Your task to perform on an android device: turn off notifications in google photos Image 0: 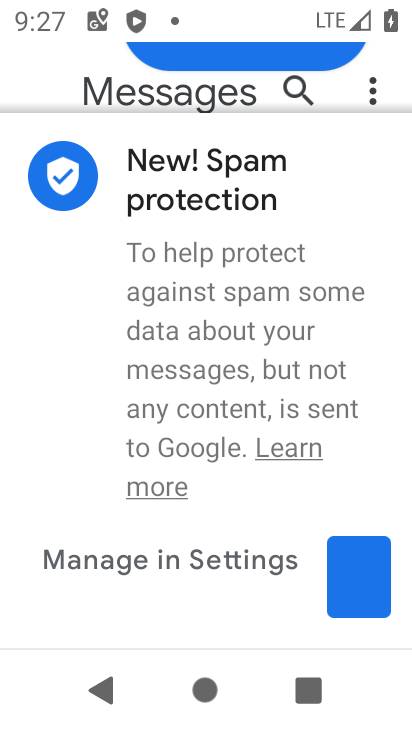
Step 0: press home button
Your task to perform on an android device: turn off notifications in google photos Image 1: 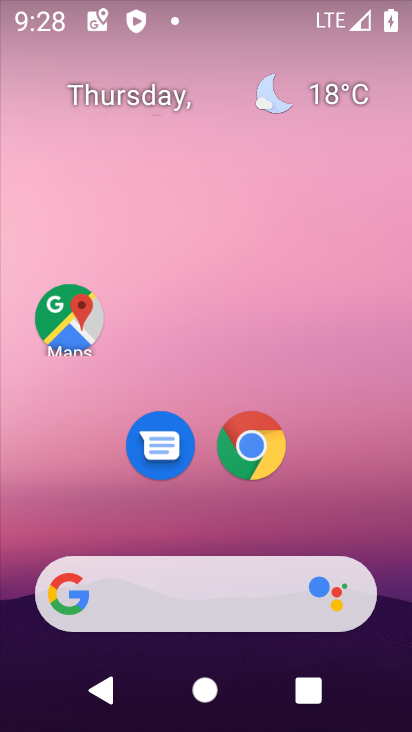
Step 1: drag from (363, 478) to (304, 126)
Your task to perform on an android device: turn off notifications in google photos Image 2: 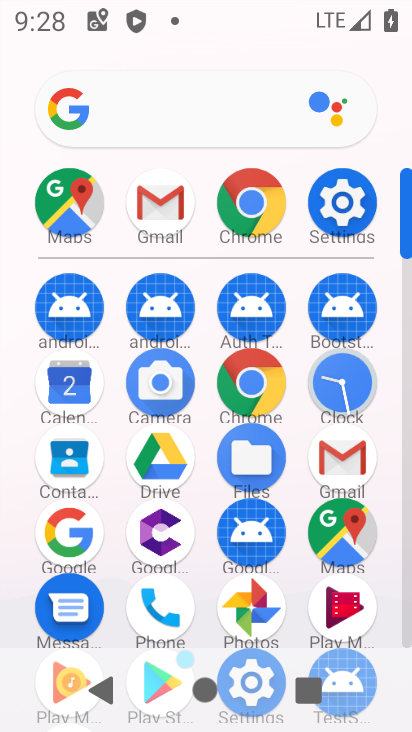
Step 2: click (255, 599)
Your task to perform on an android device: turn off notifications in google photos Image 3: 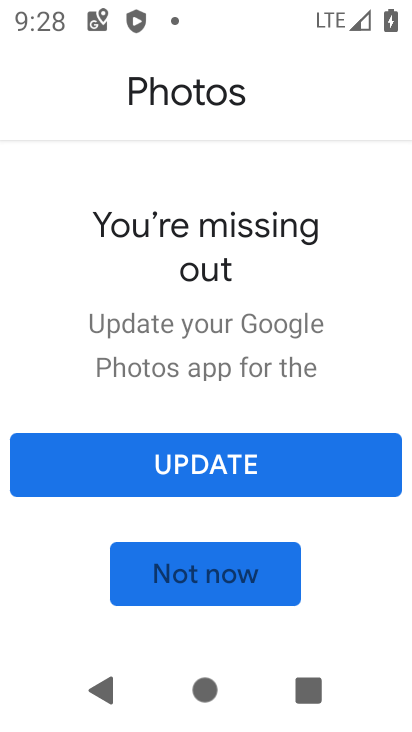
Step 3: click (247, 572)
Your task to perform on an android device: turn off notifications in google photos Image 4: 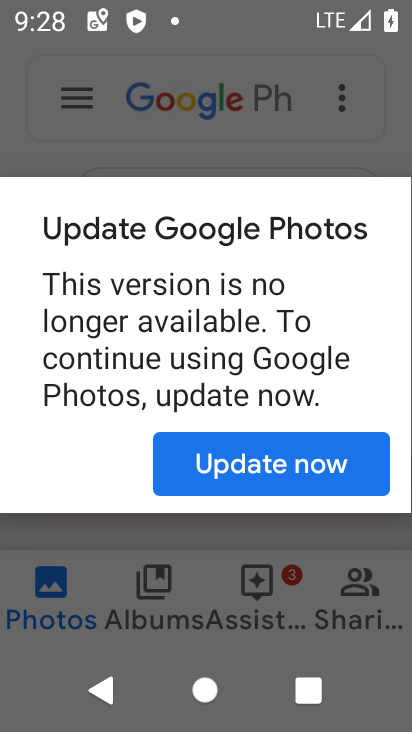
Step 4: click (251, 447)
Your task to perform on an android device: turn off notifications in google photos Image 5: 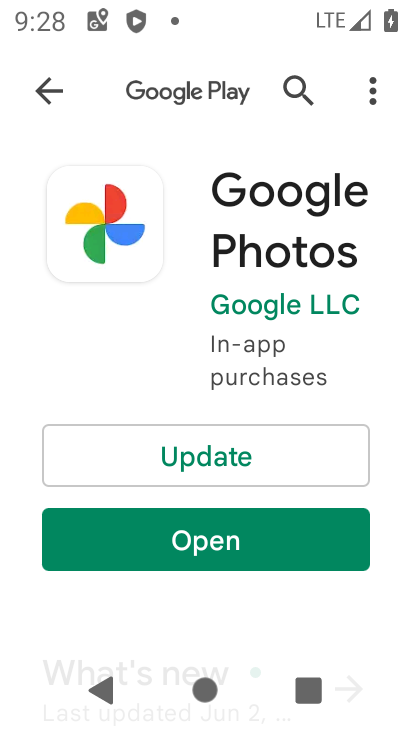
Step 5: click (251, 447)
Your task to perform on an android device: turn off notifications in google photos Image 6: 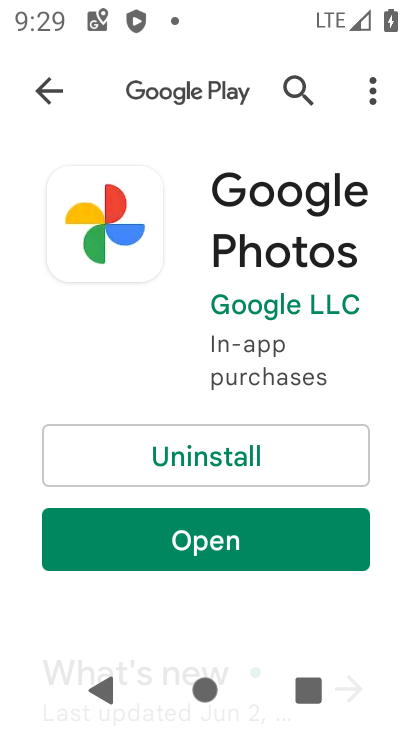
Step 6: click (286, 533)
Your task to perform on an android device: turn off notifications in google photos Image 7: 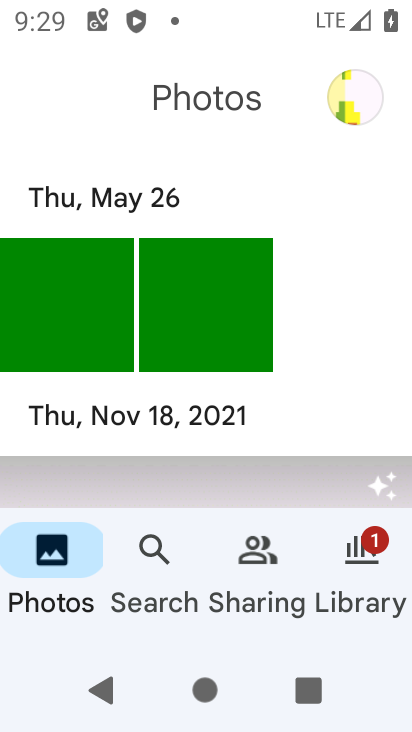
Step 7: click (374, 106)
Your task to perform on an android device: turn off notifications in google photos Image 8: 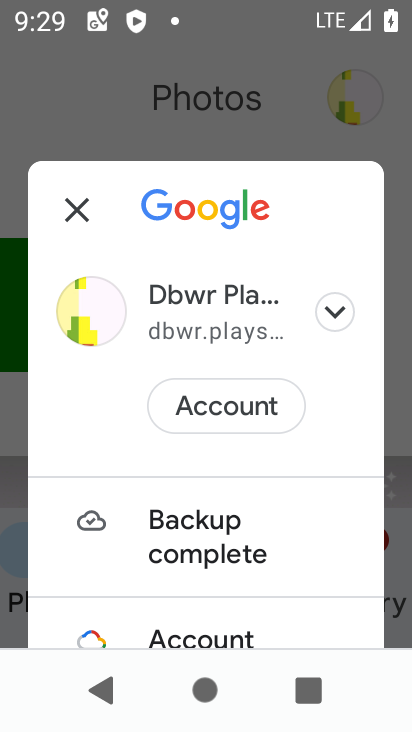
Step 8: drag from (318, 627) to (293, 249)
Your task to perform on an android device: turn off notifications in google photos Image 9: 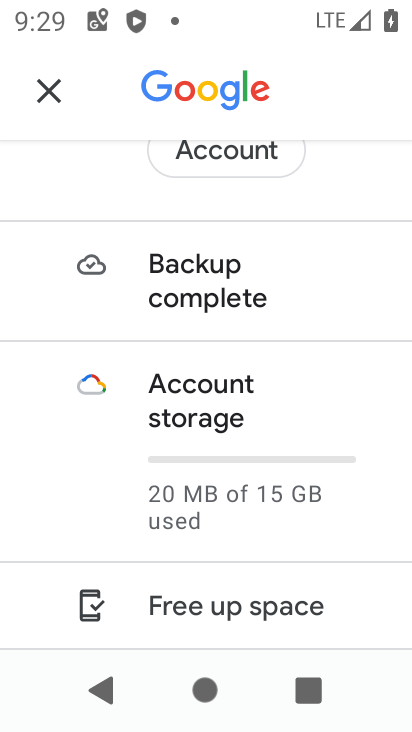
Step 9: drag from (304, 574) to (266, 180)
Your task to perform on an android device: turn off notifications in google photos Image 10: 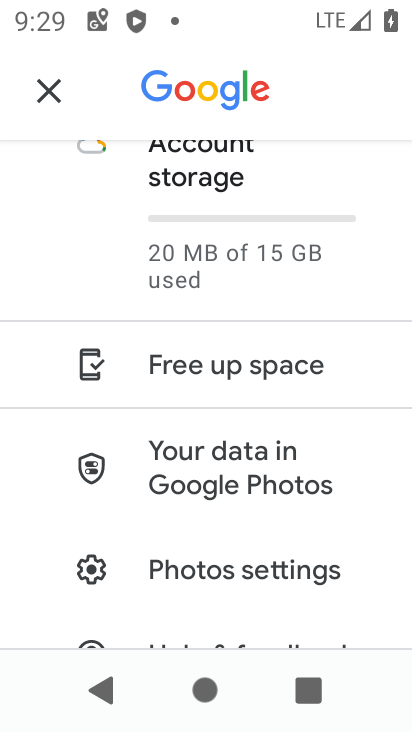
Step 10: click (271, 570)
Your task to perform on an android device: turn off notifications in google photos Image 11: 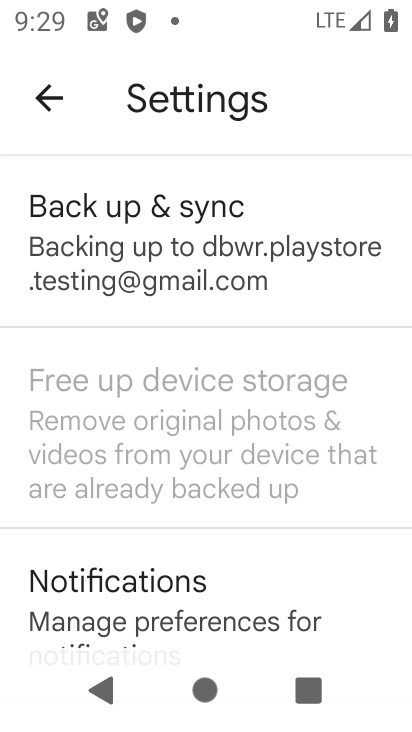
Step 11: drag from (318, 589) to (278, 305)
Your task to perform on an android device: turn off notifications in google photos Image 12: 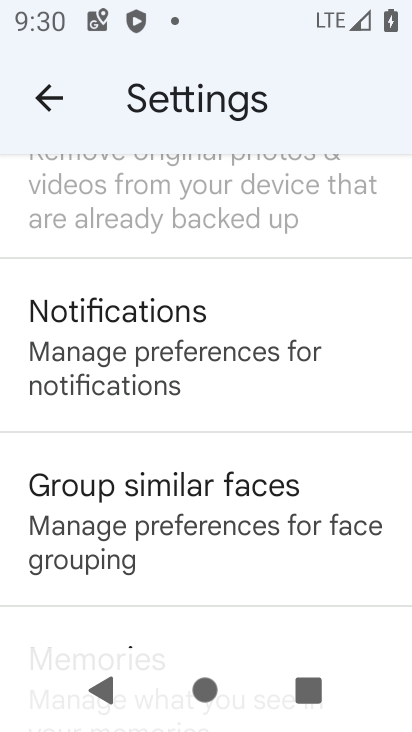
Step 12: click (284, 402)
Your task to perform on an android device: turn off notifications in google photos Image 13: 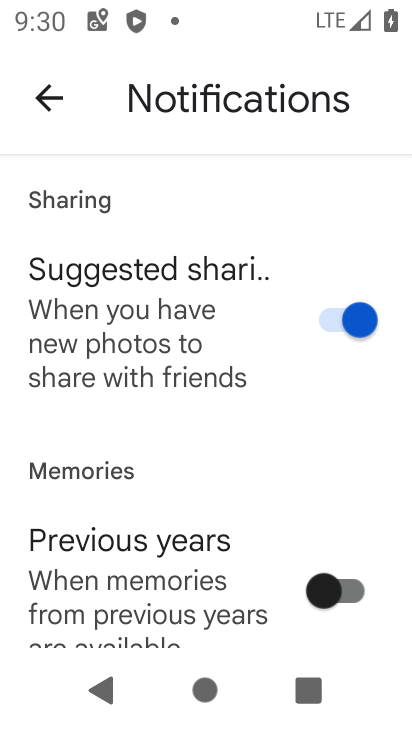
Step 13: drag from (269, 537) to (263, 185)
Your task to perform on an android device: turn off notifications in google photos Image 14: 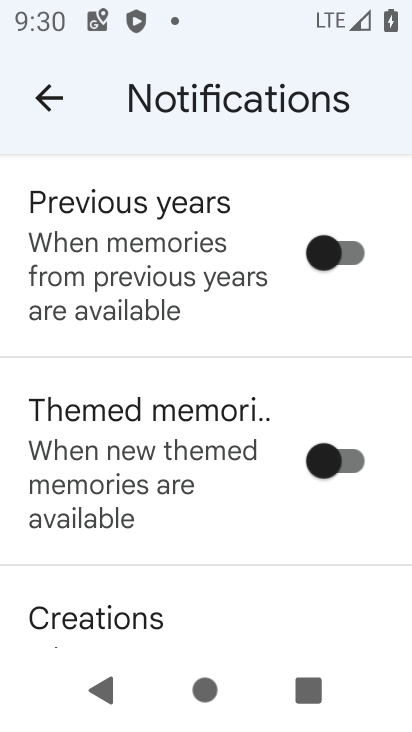
Step 14: drag from (265, 559) to (225, 150)
Your task to perform on an android device: turn off notifications in google photos Image 15: 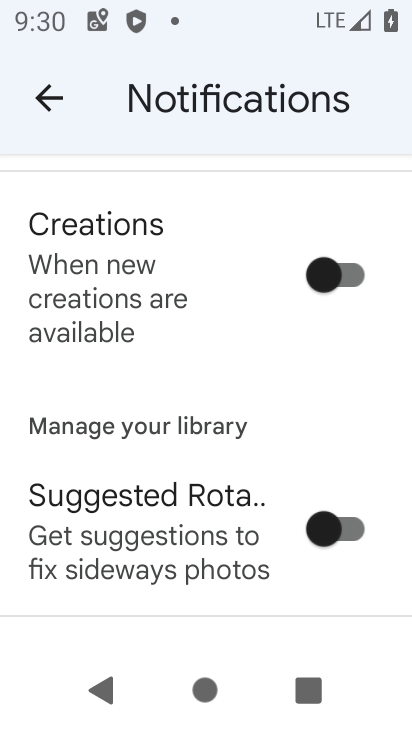
Step 15: drag from (258, 586) to (243, 217)
Your task to perform on an android device: turn off notifications in google photos Image 16: 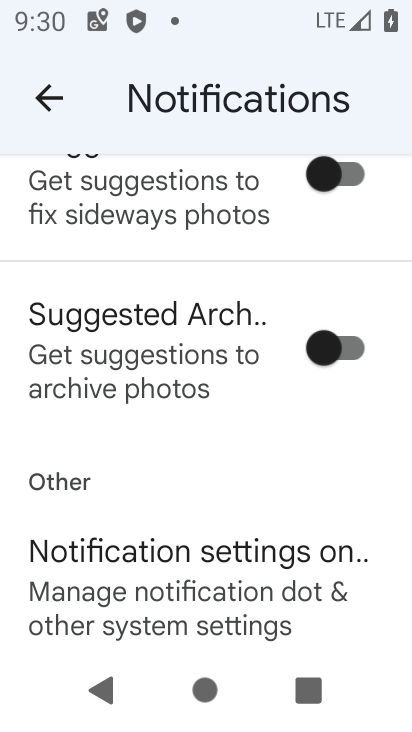
Step 16: click (272, 577)
Your task to perform on an android device: turn off notifications in google photos Image 17: 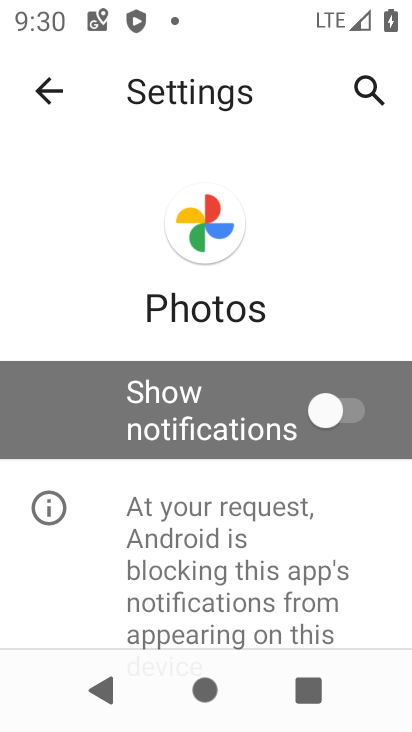
Step 17: task complete